Your task to perform on an android device: View the shopping cart on target. Search for "macbook air" on target, select the first entry, add it to the cart, then select checkout. Image 0: 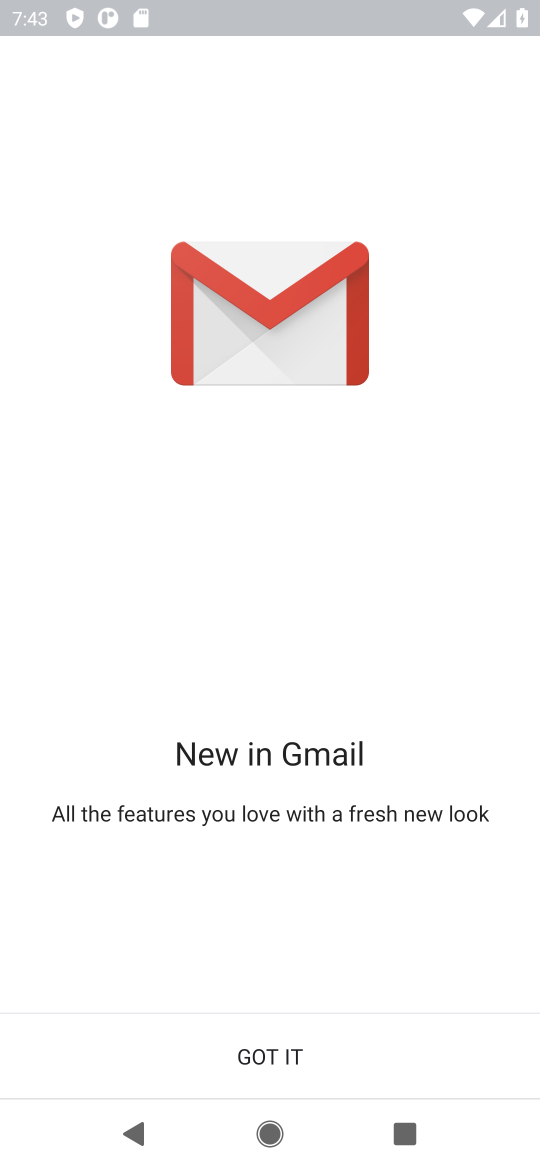
Step 0: press home button
Your task to perform on an android device: View the shopping cart on target. Search for "macbook air" on target, select the first entry, add it to the cart, then select checkout. Image 1: 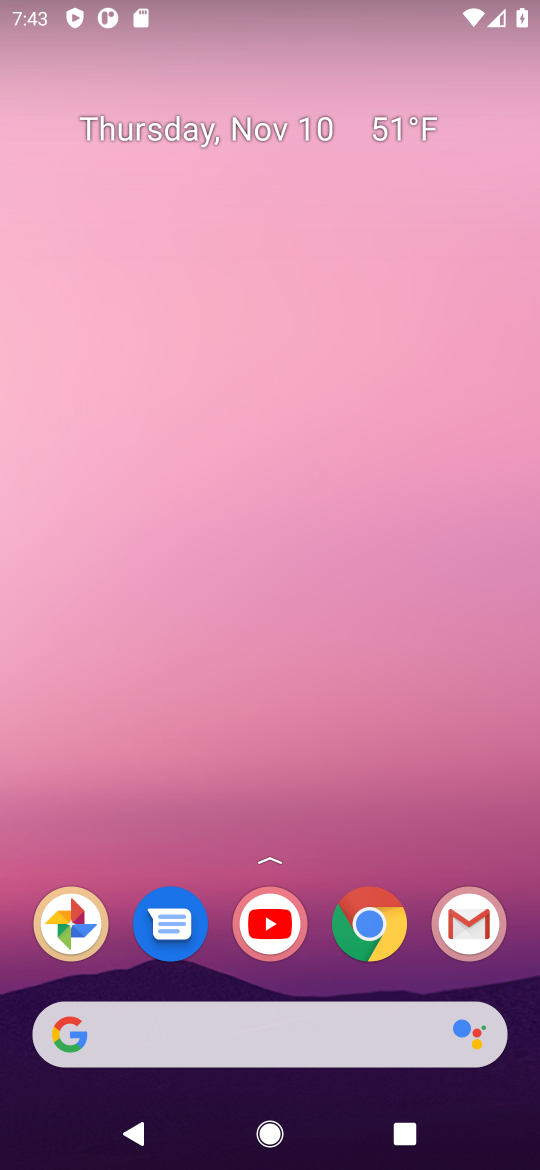
Step 1: click (378, 911)
Your task to perform on an android device: View the shopping cart on target. Search for "macbook air" on target, select the first entry, add it to the cart, then select checkout. Image 2: 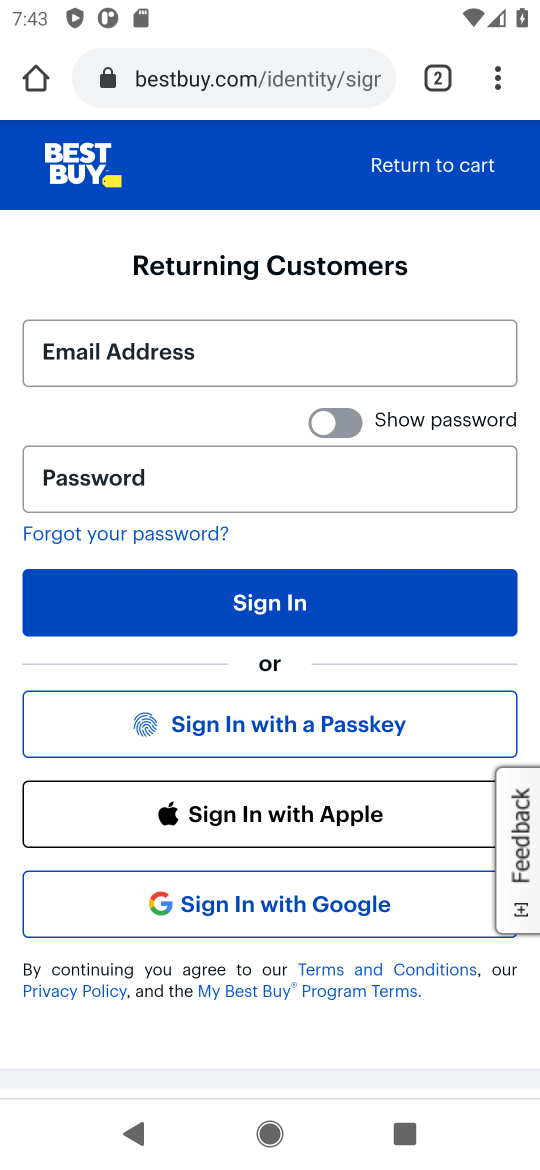
Step 2: click (263, 82)
Your task to perform on an android device: View the shopping cart on target. Search for "macbook air" on target, select the first entry, add it to the cart, then select checkout. Image 3: 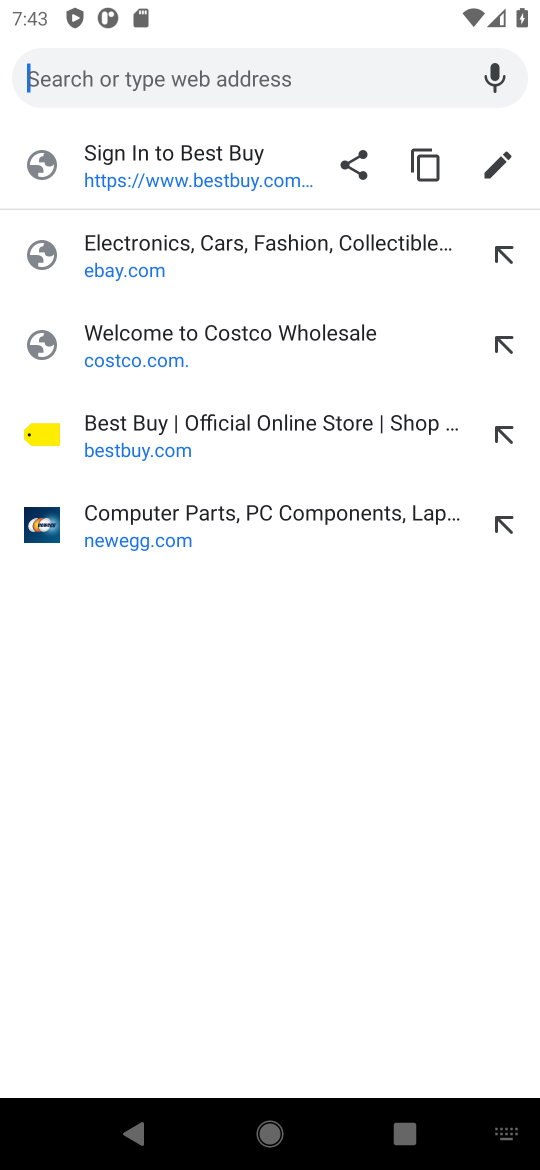
Step 3: type "target.com"
Your task to perform on an android device: View the shopping cart on target. Search for "macbook air" on target, select the first entry, add it to the cart, then select checkout. Image 4: 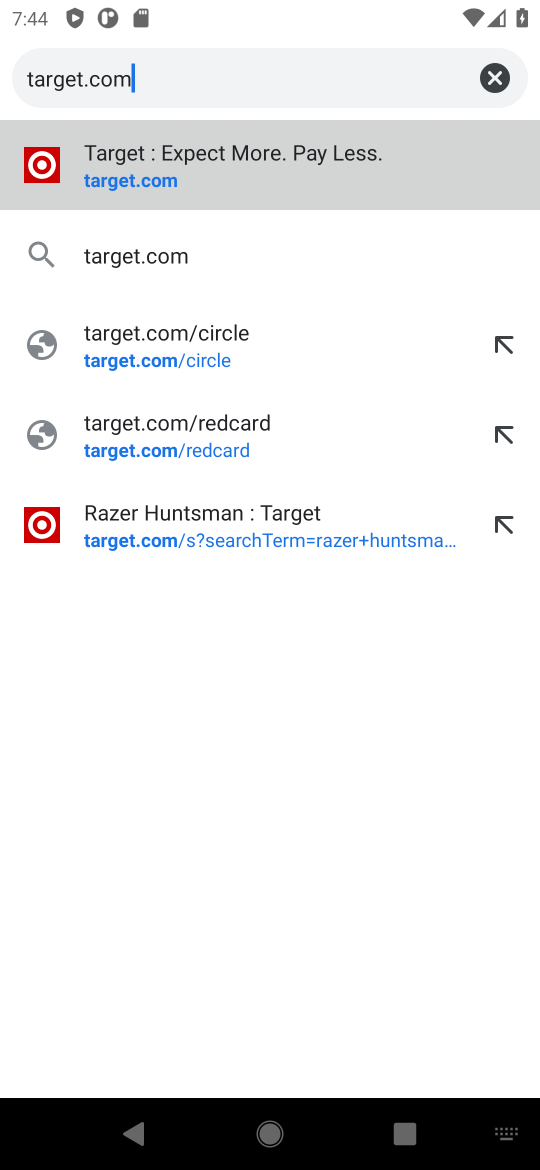
Step 4: click (118, 188)
Your task to perform on an android device: View the shopping cart on target. Search for "macbook air" on target, select the first entry, add it to the cart, then select checkout. Image 5: 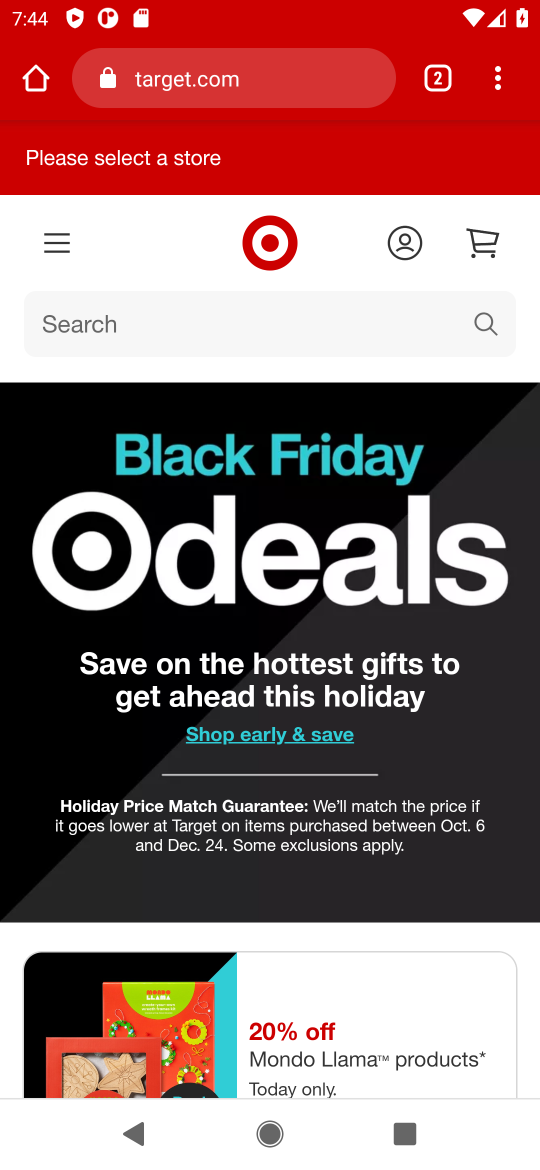
Step 5: click (475, 241)
Your task to perform on an android device: View the shopping cart on target. Search for "macbook air" on target, select the first entry, add it to the cart, then select checkout. Image 6: 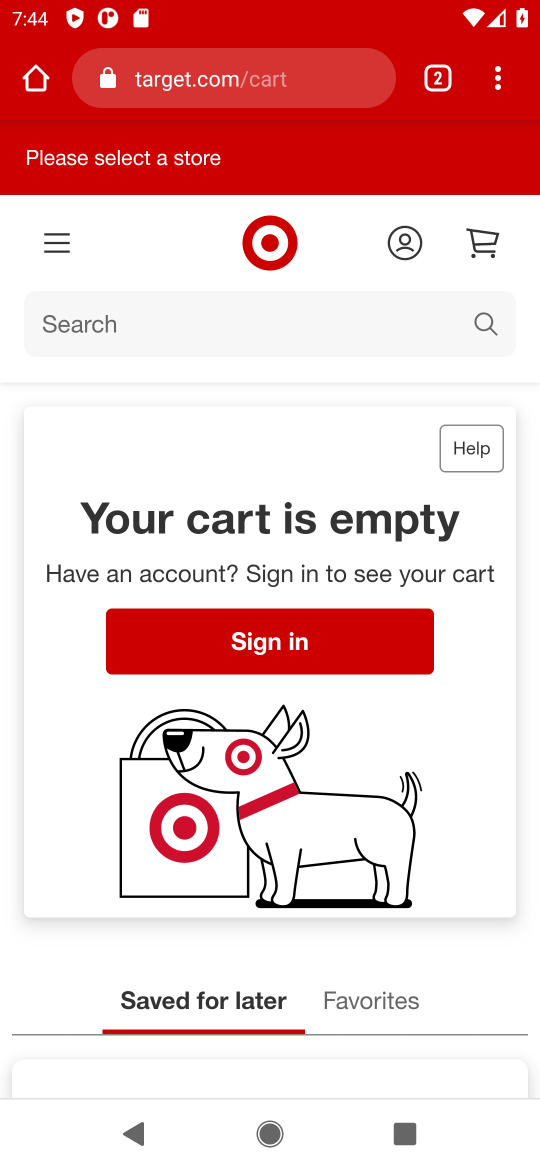
Step 6: click (457, 315)
Your task to perform on an android device: View the shopping cart on target. Search for "macbook air" on target, select the first entry, add it to the cart, then select checkout. Image 7: 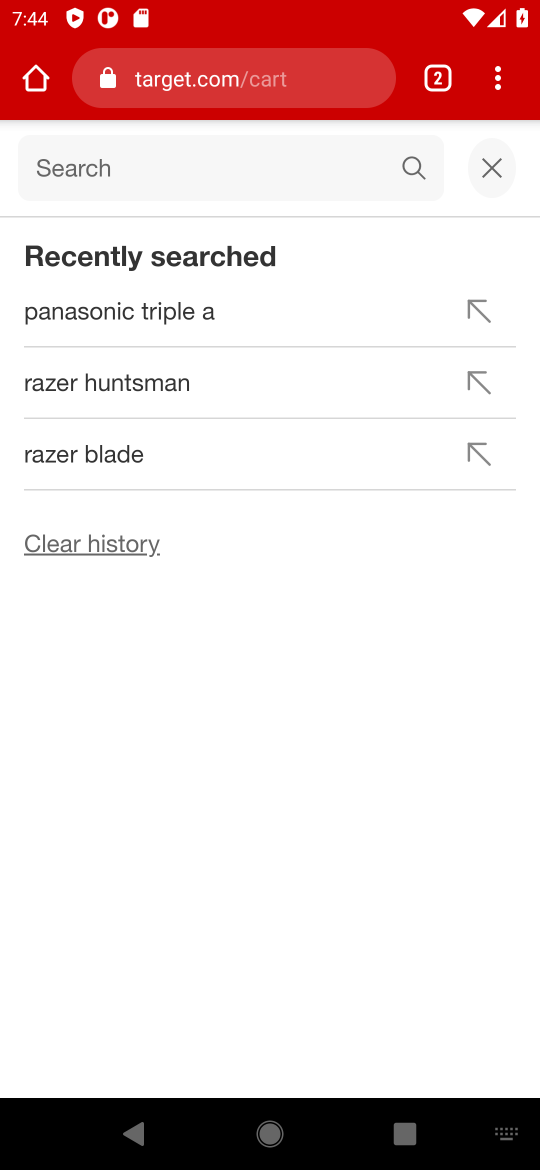
Step 7: type "macbook air"
Your task to perform on an android device: View the shopping cart on target. Search for "macbook air" on target, select the first entry, add it to the cart, then select checkout. Image 8: 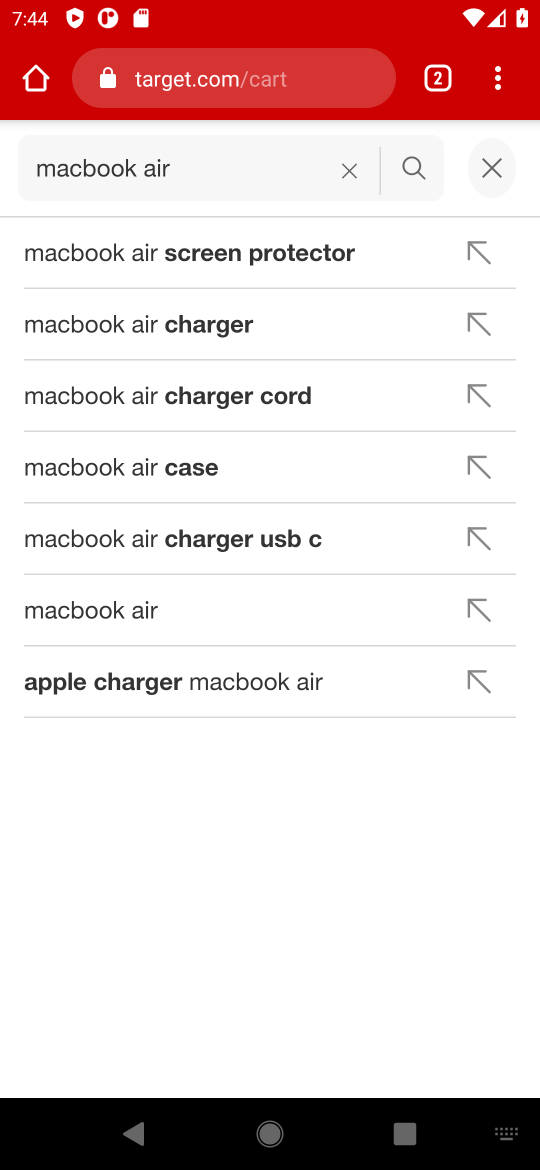
Step 8: click (117, 620)
Your task to perform on an android device: View the shopping cart on target. Search for "macbook air" on target, select the first entry, add it to the cart, then select checkout. Image 9: 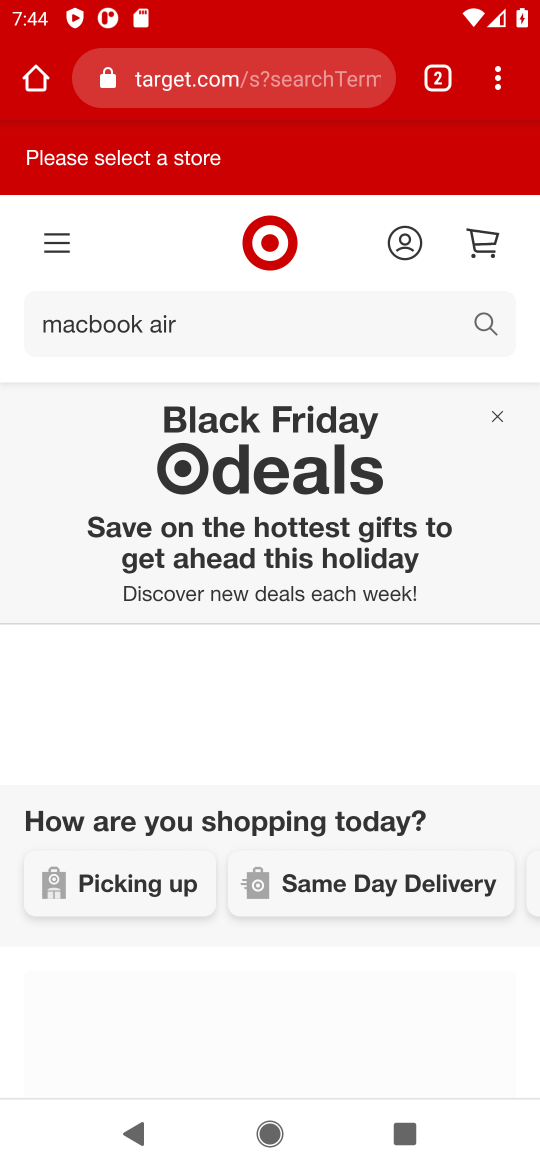
Step 9: task complete